Your task to perform on an android device: Check the news Image 0: 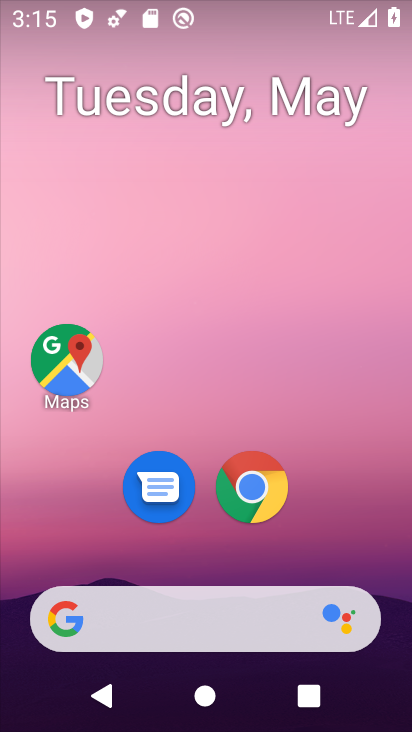
Step 0: click (254, 485)
Your task to perform on an android device: Check the news Image 1: 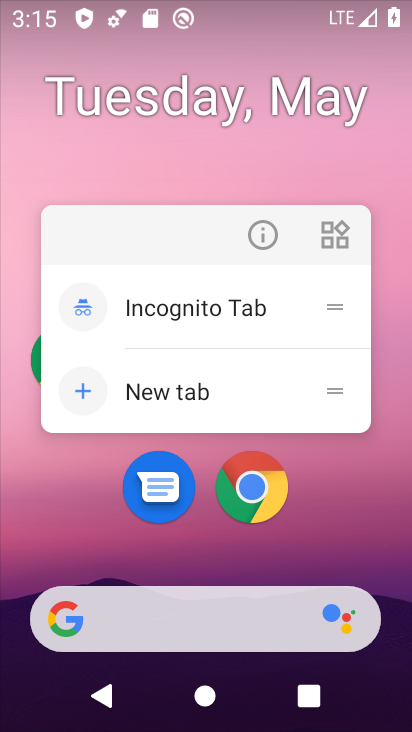
Step 1: click (248, 483)
Your task to perform on an android device: Check the news Image 2: 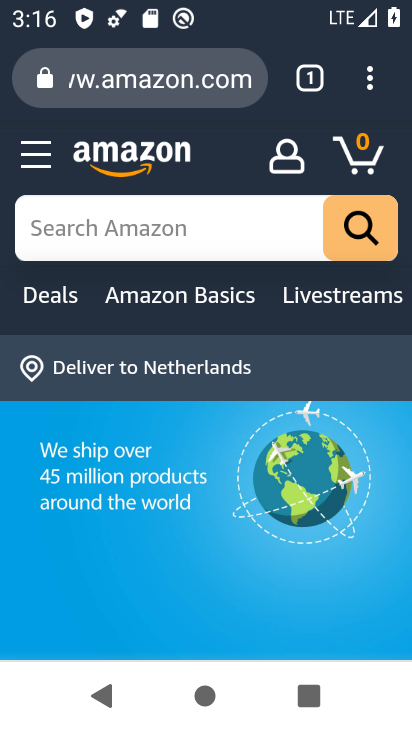
Step 2: click (202, 79)
Your task to perform on an android device: Check the news Image 3: 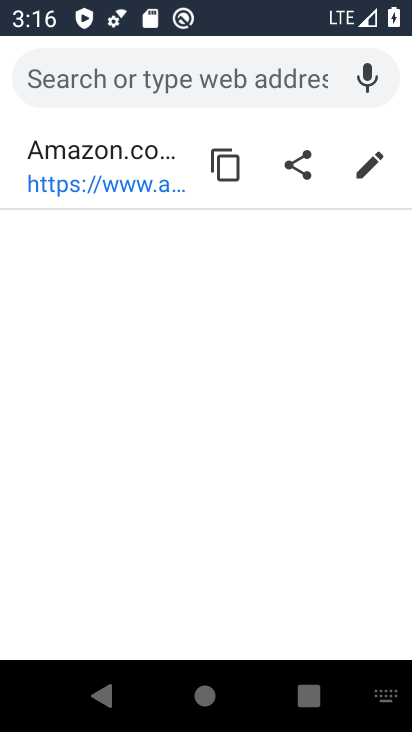
Step 3: type "news"
Your task to perform on an android device: Check the news Image 4: 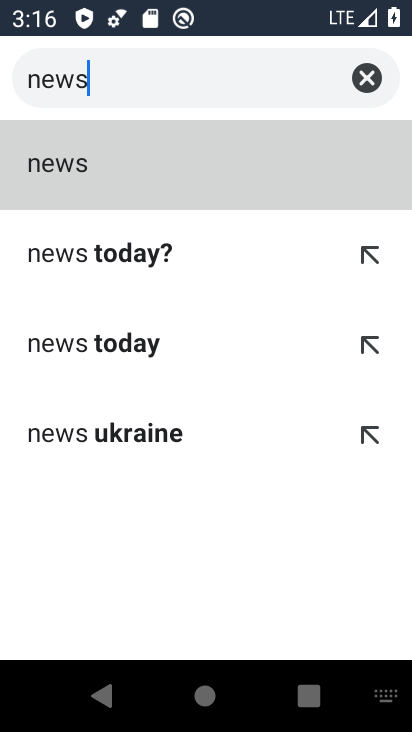
Step 4: click (54, 160)
Your task to perform on an android device: Check the news Image 5: 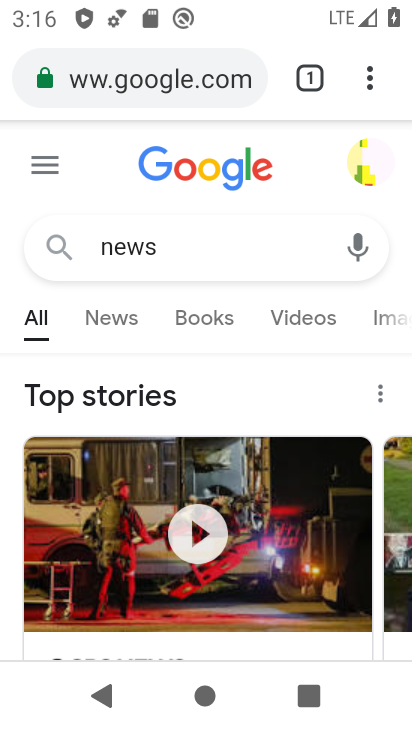
Step 5: click (104, 325)
Your task to perform on an android device: Check the news Image 6: 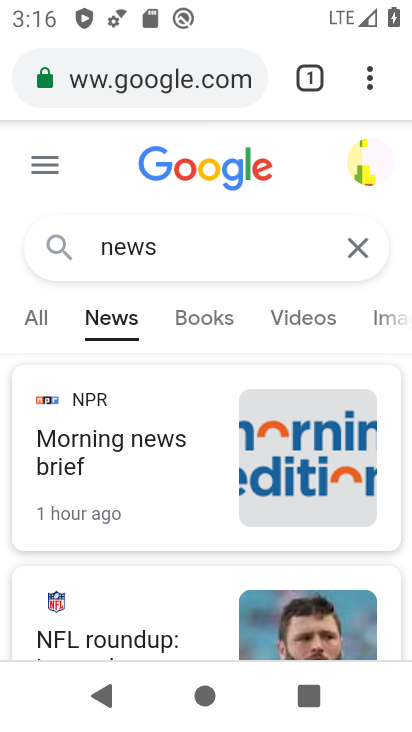
Step 6: task complete